Your task to perform on an android device: Open Google Maps Image 0: 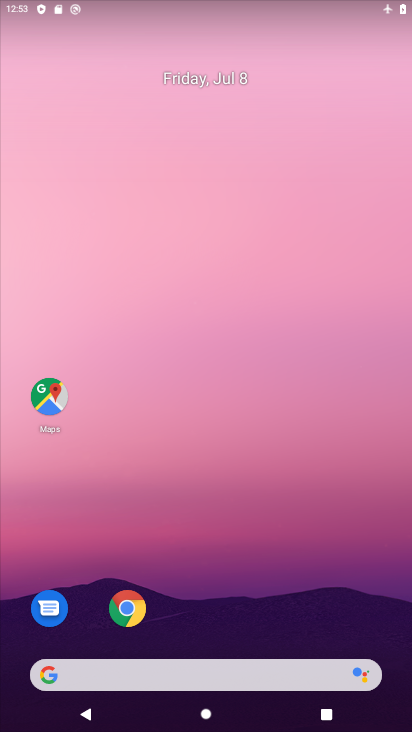
Step 0: click (49, 398)
Your task to perform on an android device: Open Google Maps Image 1: 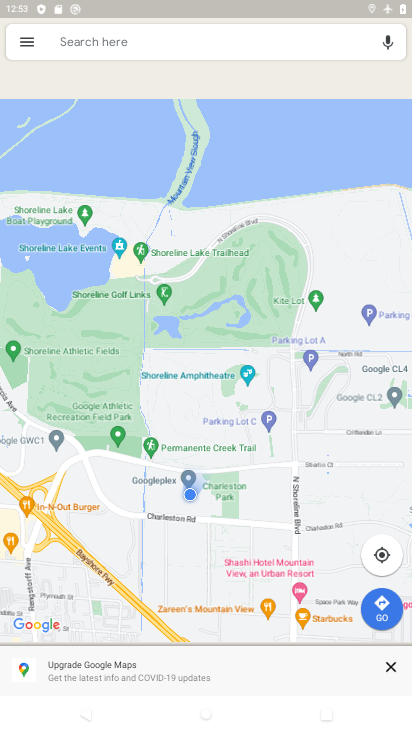
Step 1: task complete